Your task to perform on an android device: turn on javascript in the chrome app Image 0: 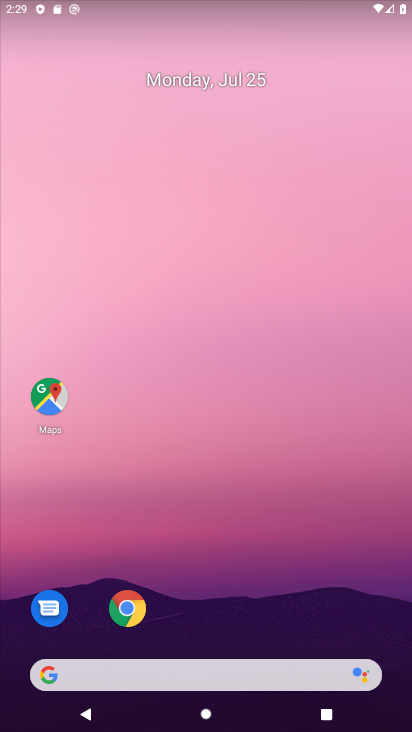
Step 0: drag from (236, 629) to (159, 33)
Your task to perform on an android device: turn on javascript in the chrome app Image 1: 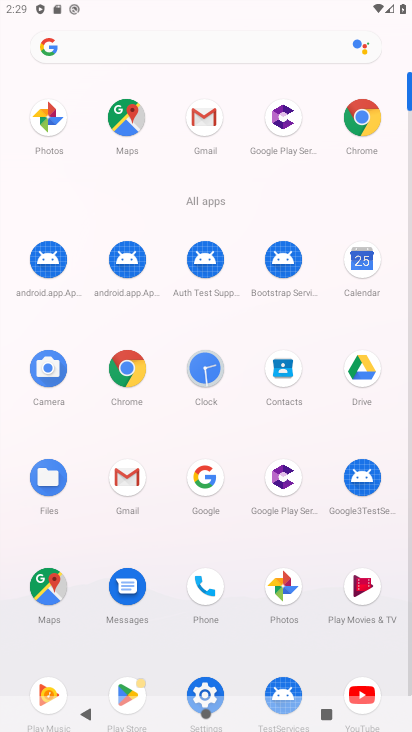
Step 1: click (359, 121)
Your task to perform on an android device: turn on javascript in the chrome app Image 2: 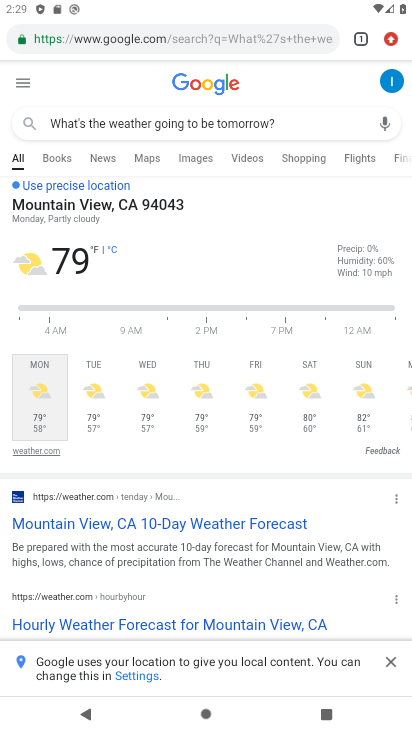
Step 2: click (395, 47)
Your task to perform on an android device: turn on javascript in the chrome app Image 3: 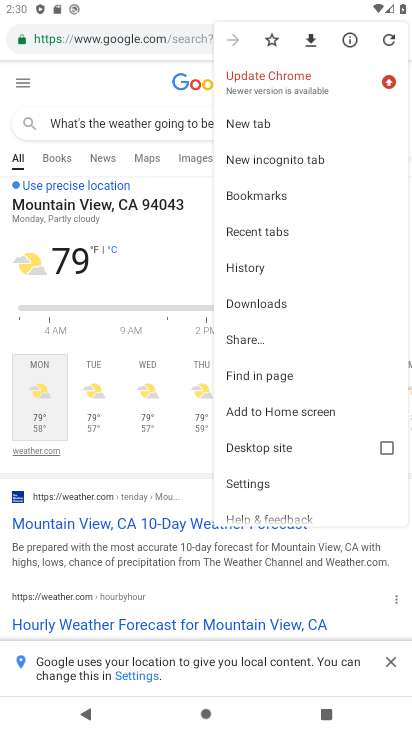
Step 3: click (303, 482)
Your task to perform on an android device: turn on javascript in the chrome app Image 4: 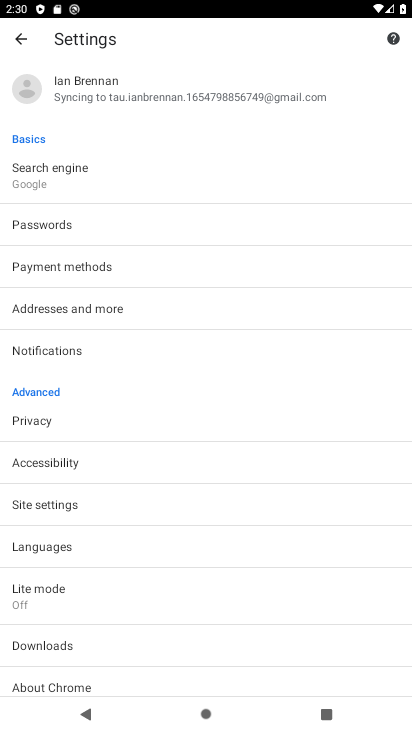
Step 4: click (151, 511)
Your task to perform on an android device: turn on javascript in the chrome app Image 5: 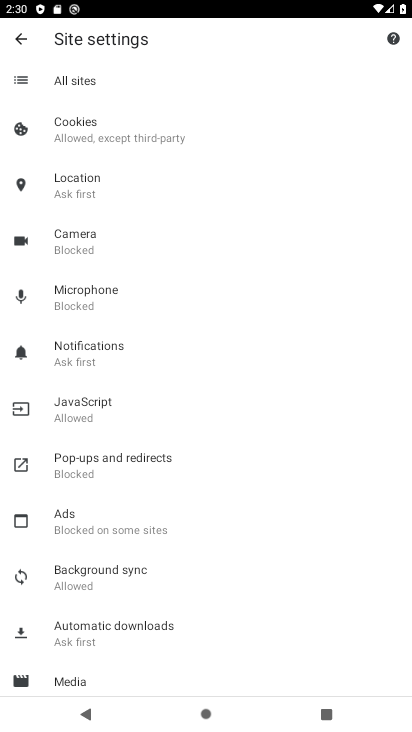
Step 5: click (158, 413)
Your task to perform on an android device: turn on javascript in the chrome app Image 6: 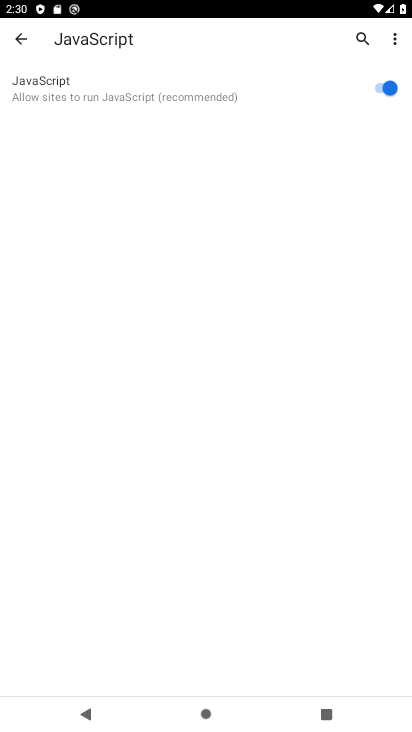
Step 6: task complete